Your task to perform on an android device: turn notification dots off Image 0: 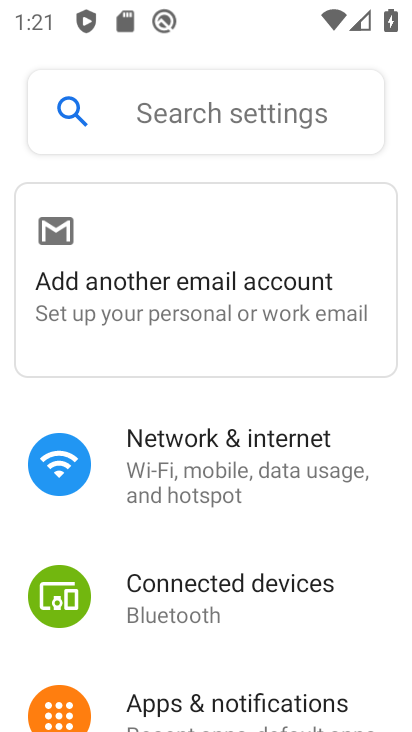
Step 0: drag from (235, 666) to (231, 280)
Your task to perform on an android device: turn notification dots off Image 1: 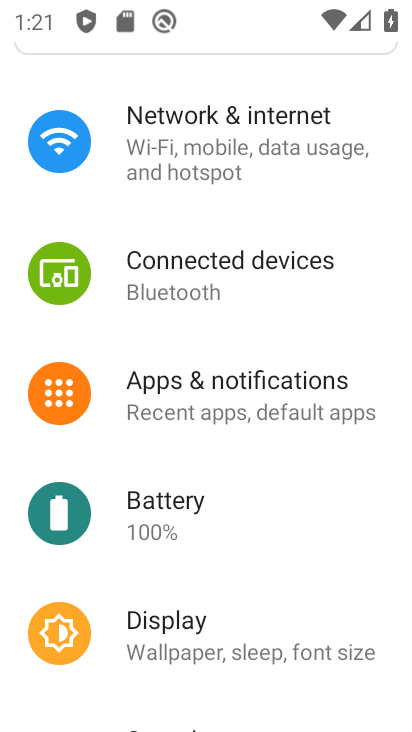
Step 1: click (217, 393)
Your task to perform on an android device: turn notification dots off Image 2: 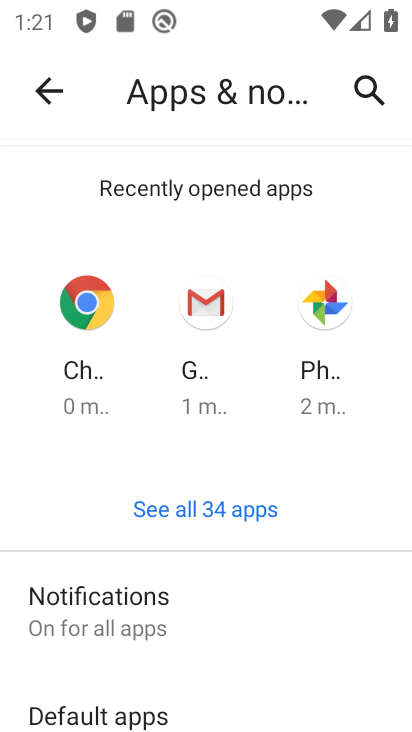
Step 2: drag from (202, 671) to (193, 371)
Your task to perform on an android device: turn notification dots off Image 3: 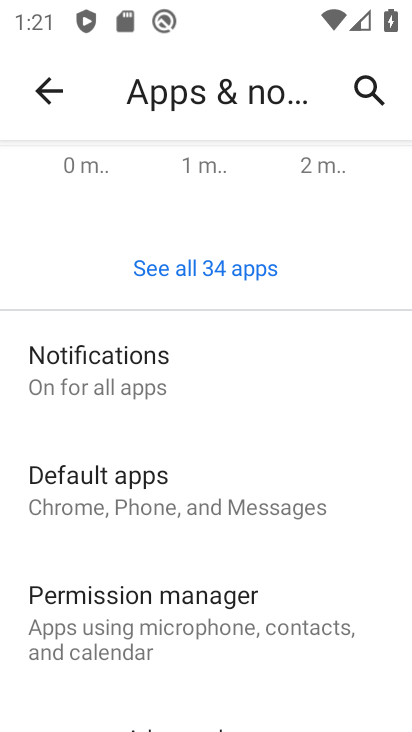
Step 3: click (126, 380)
Your task to perform on an android device: turn notification dots off Image 4: 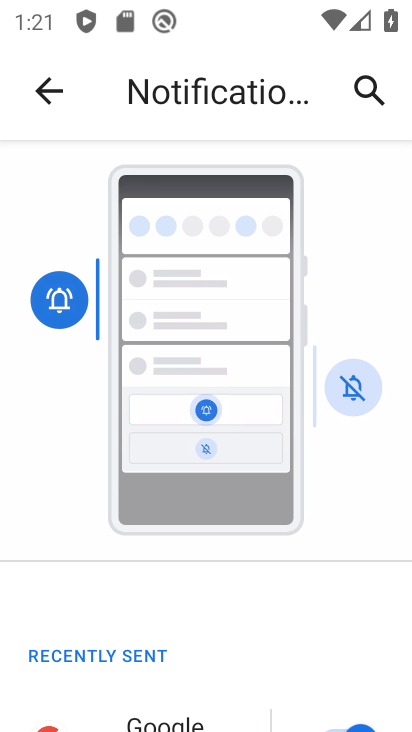
Step 4: drag from (236, 674) to (232, 246)
Your task to perform on an android device: turn notification dots off Image 5: 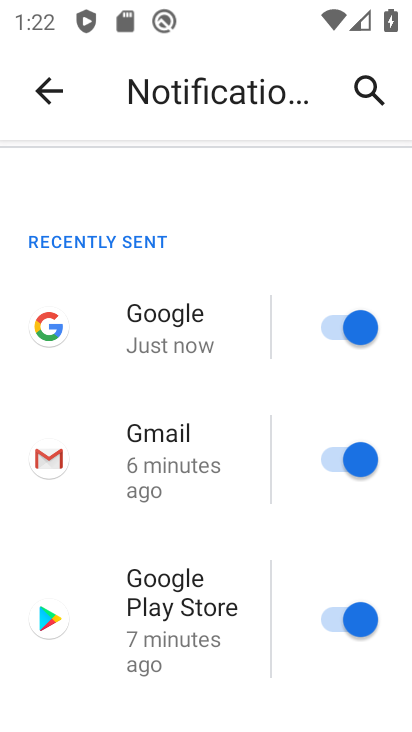
Step 5: drag from (231, 691) to (219, 292)
Your task to perform on an android device: turn notification dots off Image 6: 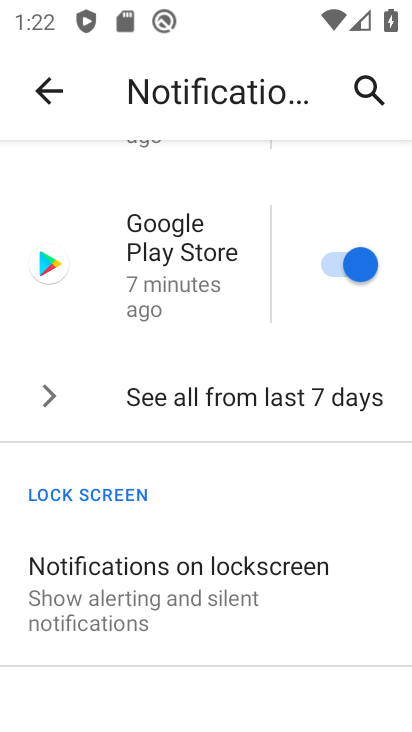
Step 6: drag from (239, 678) to (231, 238)
Your task to perform on an android device: turn notification dots off Image 7: 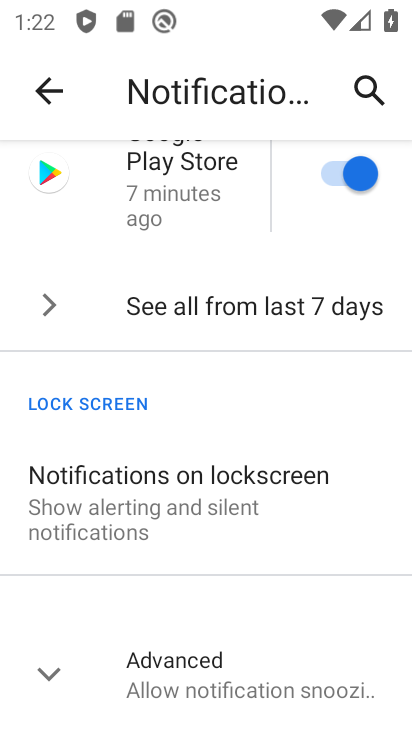
Step 7: click (187, 673)
Your task to perform on an android device: turn notification dots off Image 8: 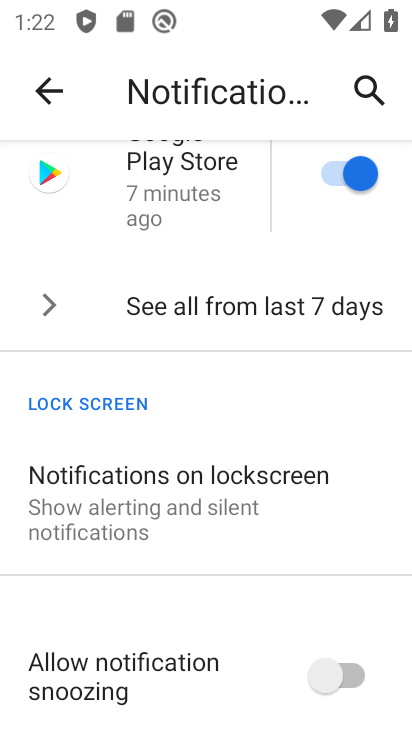
Step 8: drag from (244, 697) to (249, 245)
Your task to perform on an android device: turn notification dots off Image 9: 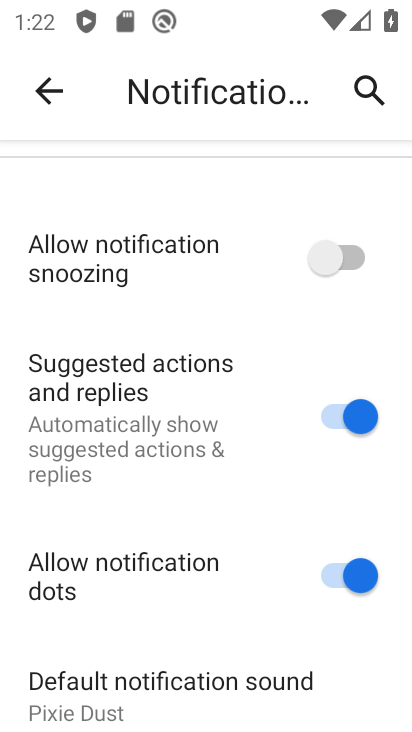
Step 9: drag from (255, 647) to (237, 329)
Your task to perform on an android device: turn notification dots off Image 10: 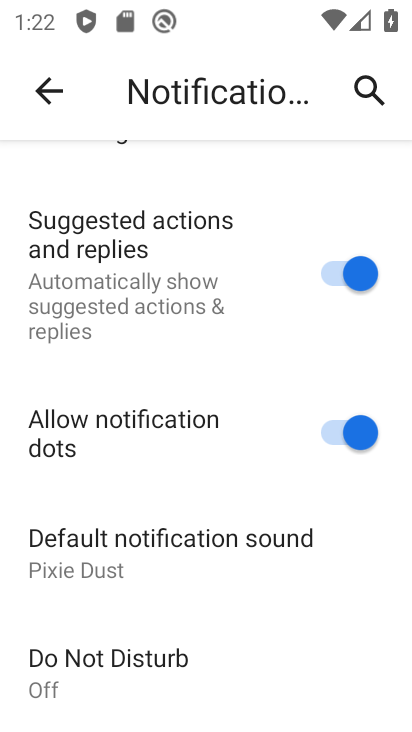
Step 10: click (328, 433)
Your task to perform on an android device: turn notification dots off Image 11: 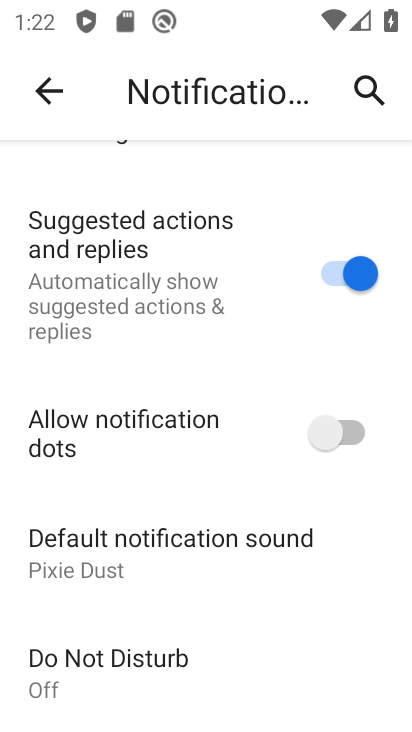
Step 11: task complete